Your task to perform on an android device: find which apps use the phone's location Image 0: 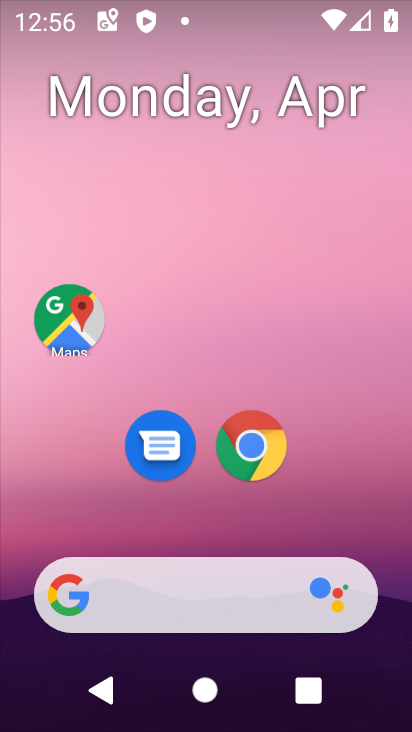
Step 0: drag from (377, 510) to (376, 86)
Your task to perform on an android device: find which apps use the phone's location Image 1: 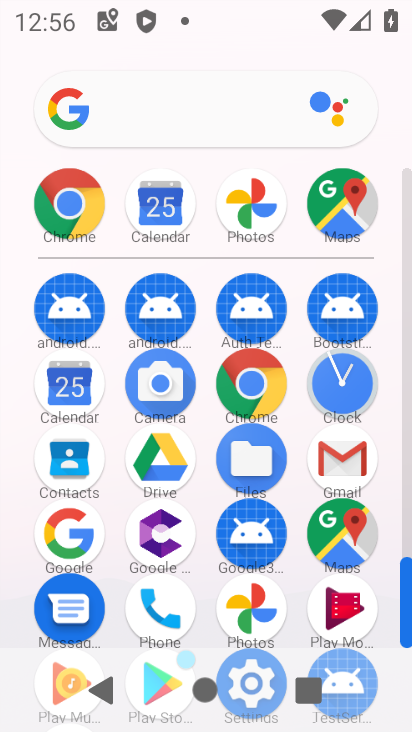
Step 1: drag from (391, 520) to (389, 249)
Your task to perform on an android device: find which apps use the phone's location Image 2: 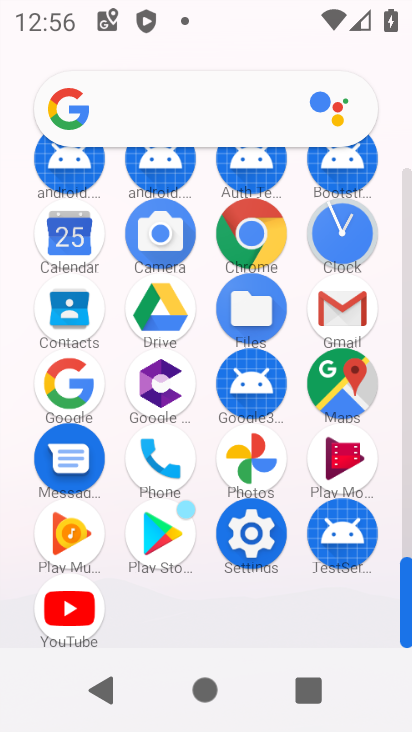
Step 2: click (236, 542)
Your task to perform on an android device: find which apps use the phone's location Image 3: 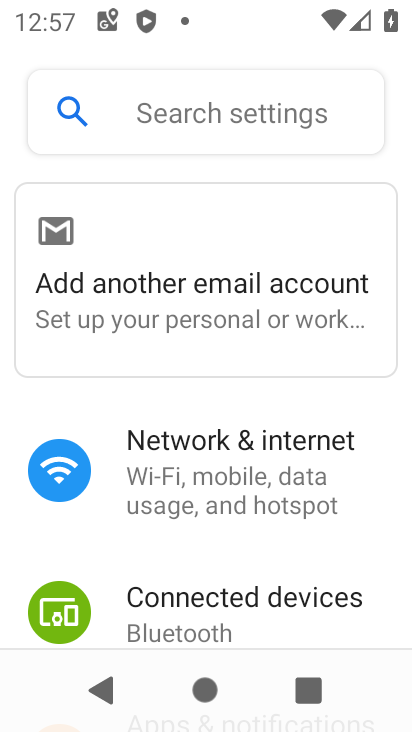
Step 3: drag from (355, 552) to (368, 338)
Your task to perform on an android device: find which apps use the phone's location Image 4: 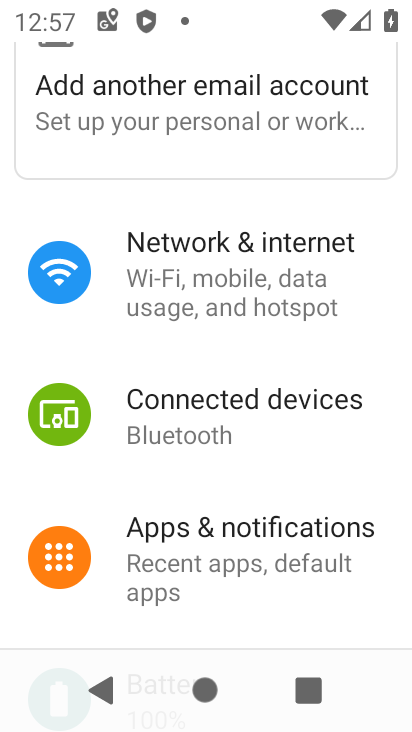
Step 4: drag from (376, 613) to (374, 355)
Your task to perform on an android device: find which apps use the phone's location Image 5: 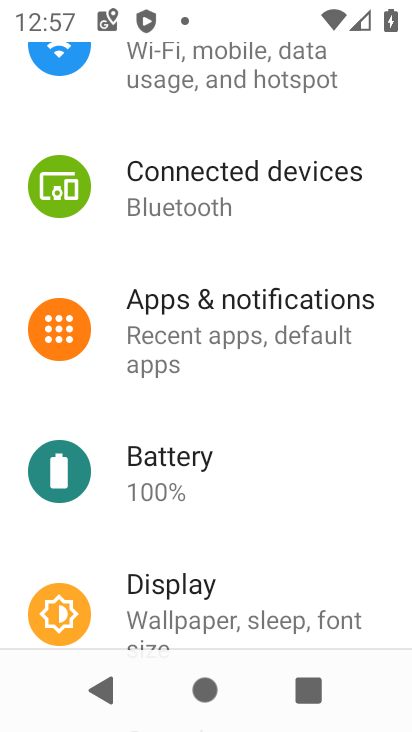
Step 5: drag from (369, 595) to (374, 293)
Your task to perform on an android device: find which apps use the phone's location Image 6: 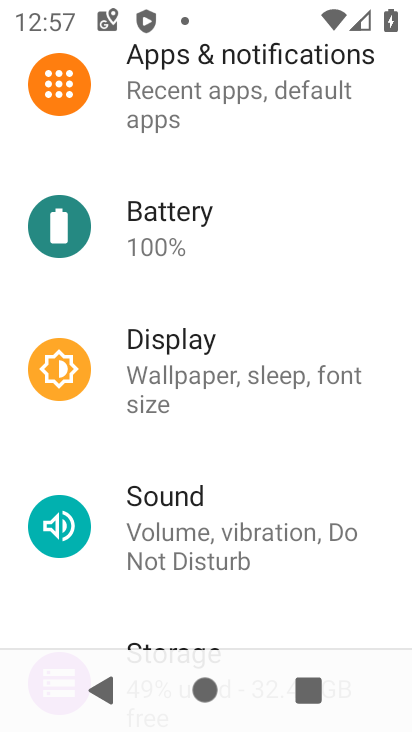
Step 6: drag from (342, 597) to (365, 359)
Your task to perform on an android device: find which apps use the phone's location Image 7: 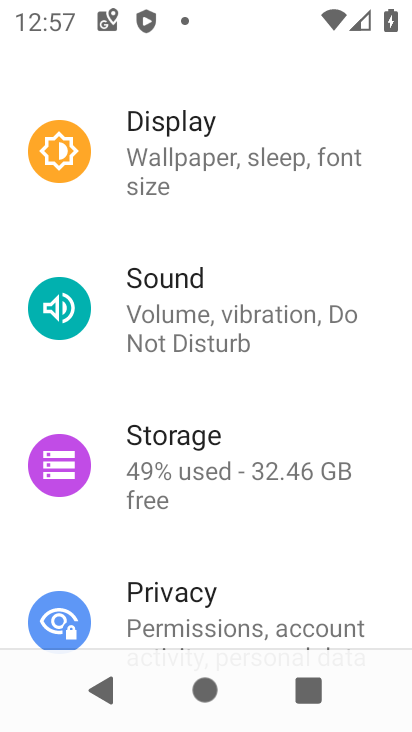
Step 7: drag from (343, 578) to (360, 384)
Your task to perform on an android device: find which apps use the phone's location Image 8: 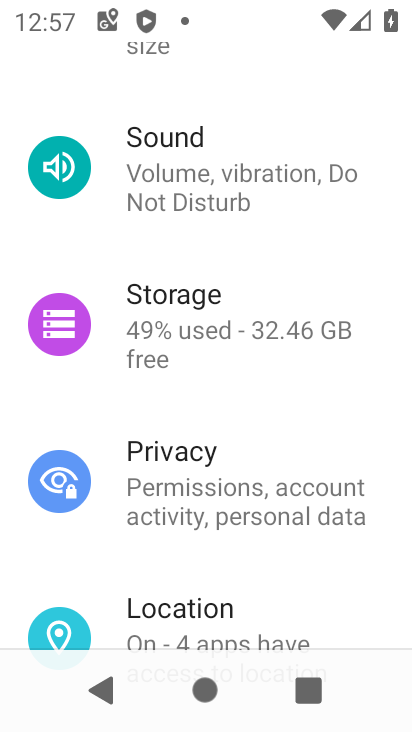
Step 8: drag from (336, 579) to (305, 379)
Your task to perform on an android device: find which apps use the phone's location Image 9: 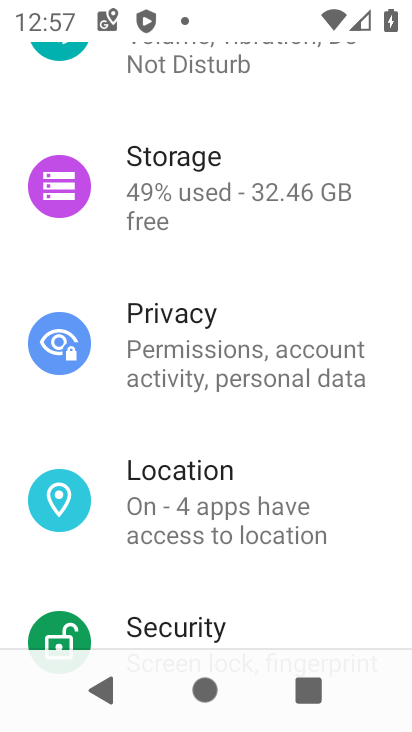
Step 9: drag from (343, 372) to (345, 285)
Your task to perform on an android device: find which apps use the phone's location Image 10: 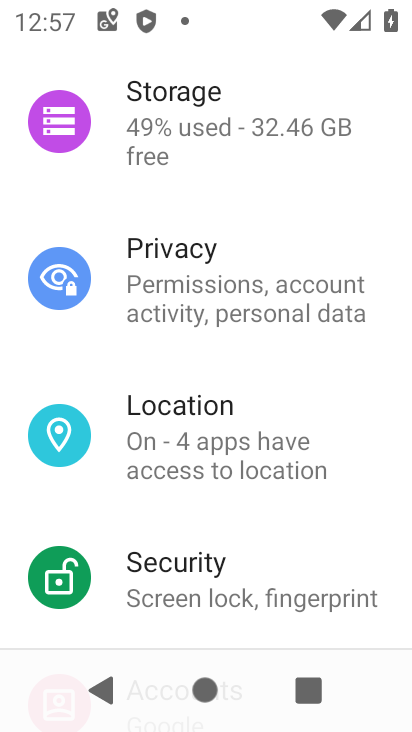
Step 10: click (183, 443)
Your task to perform on an android device: find which apps use the phone's location Image 11: 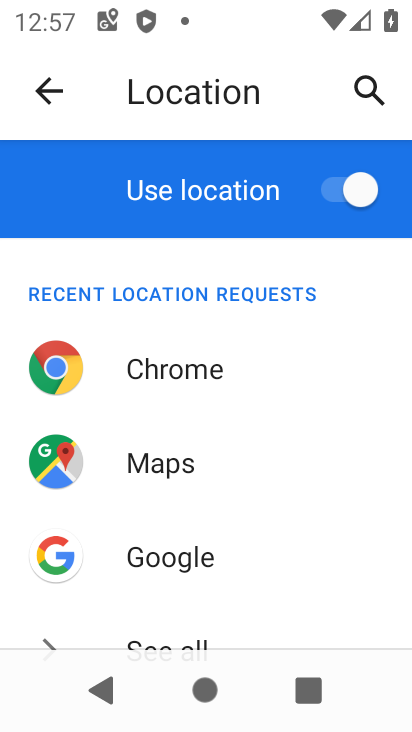
Step 11: drag from (334, 541) to (340, 424)
Your task to perform on an android device: find which apps use the phone's location Image 12: 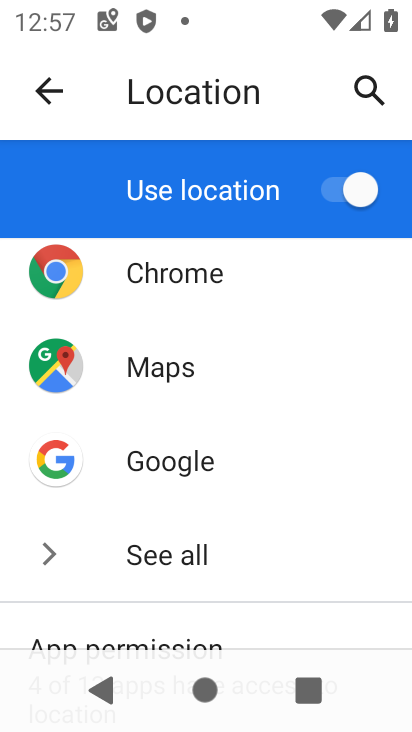
Step 12: drag from (347, 573) to (345, 356)
Your task to perform on an android device: find which apps use the phone's location Image 13: 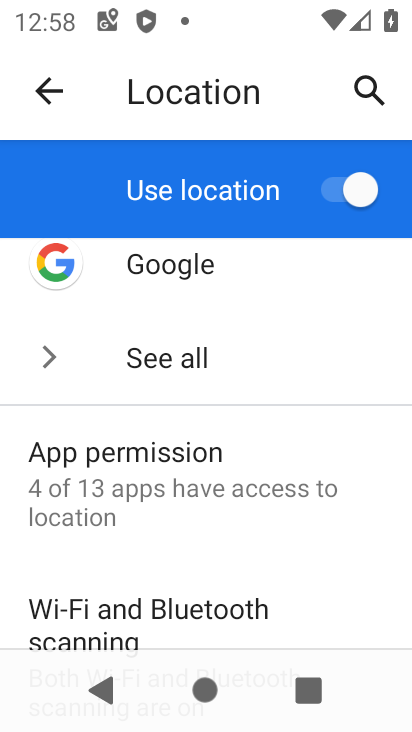
Step 13: drag from (328, 570) to (326, 397)
Your task to perform on an android device: find which apps use the phone's location Image 14: 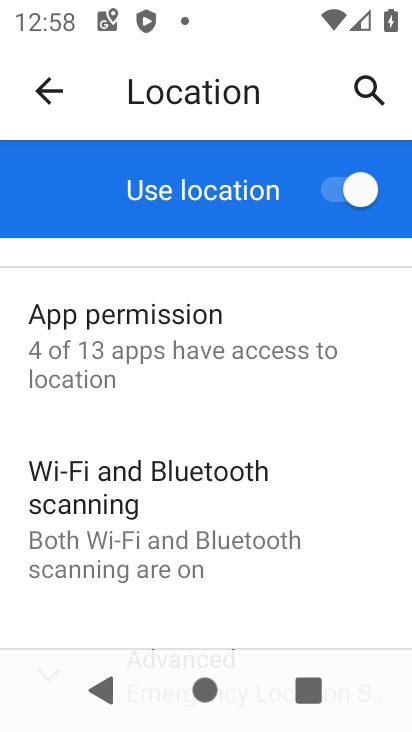
Step 14: drag from (336, 576) to (338, 430)
Your task to perform on an android device: find which apps use the phone's location Image 15: 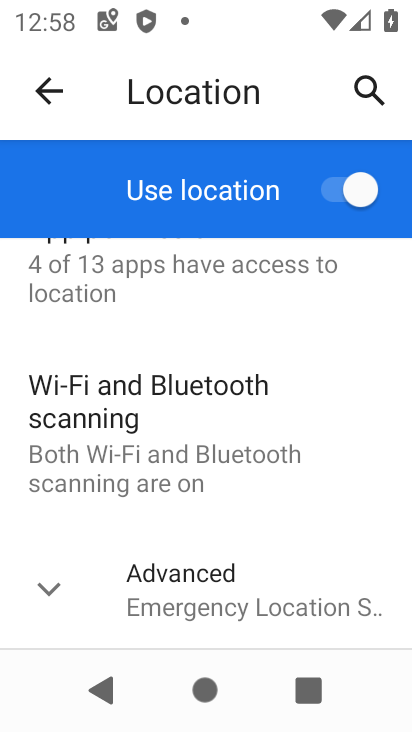
Step 15: click (183, 275)
Your task to perform on an android device: find which apps use the phone's location Image 16: 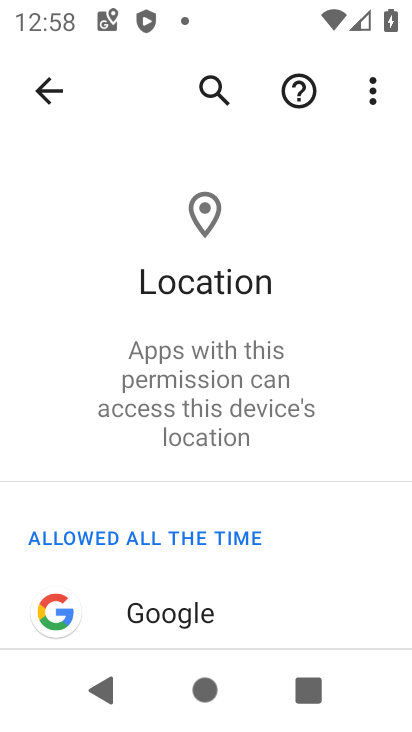
Step 16: drag from (318, 579) to (319, 372)
Your task to perform on an android device: find which apps use the phone's location Image 17: 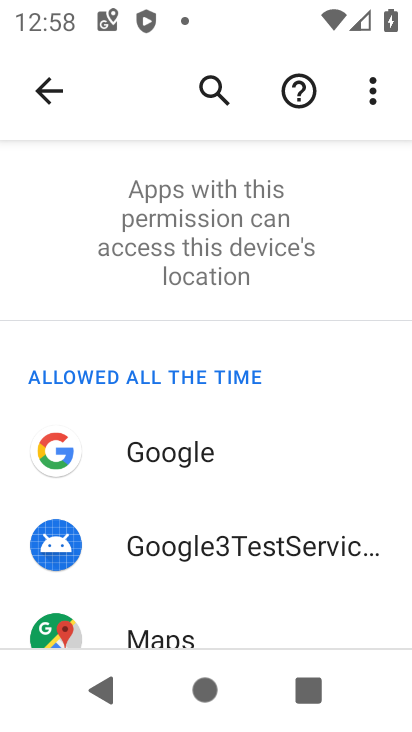
Step 17: drag from (318, 588) to (316, 354)
Your task to perform on an android device: find which apps use the phone's location Image 18: 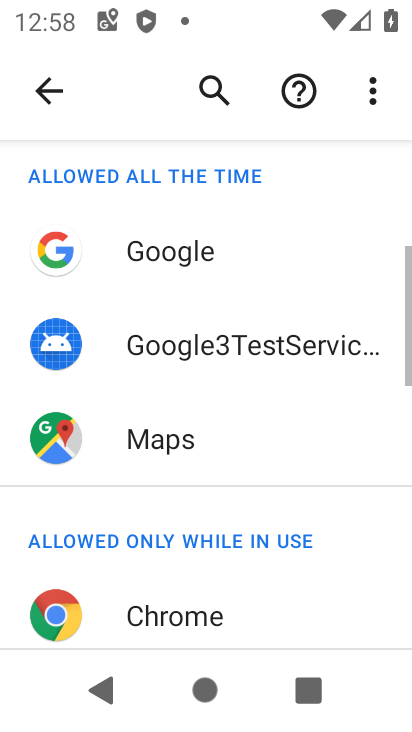
Step 18: drag from (335, 584) to (338, 376)
Your task to perform on an android device: find which apps use the phone's location Image 19: 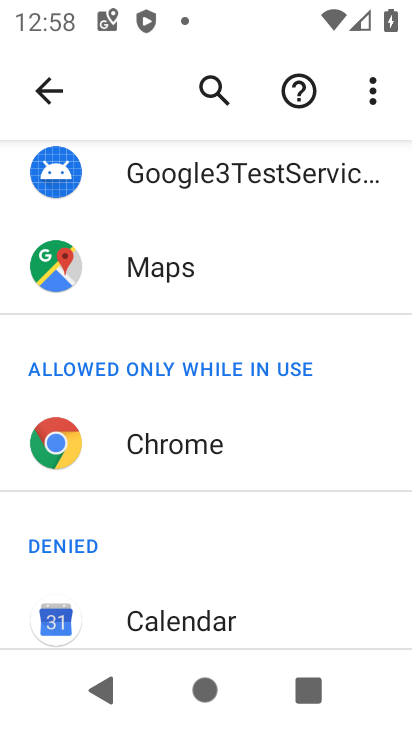
Step 19: drag from (320, 529) to (323, 346)
Your task to perform on an android device: find which apps use the phone's location Image 20: 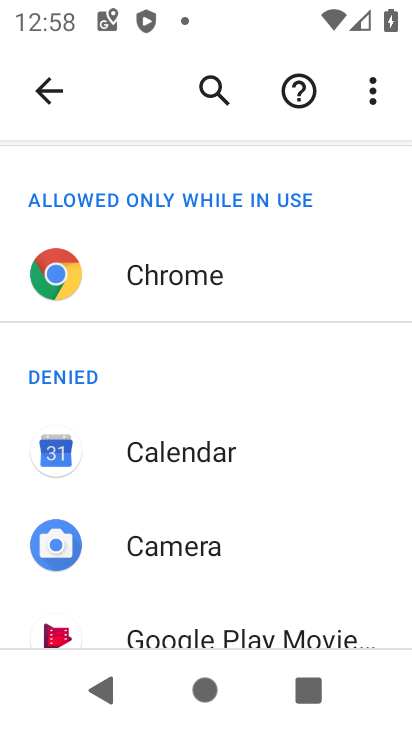
Step 20: drag from (304, 563) to (314, 343)
Your task to perform on an android device: find which apps use the phone's location Image 21: 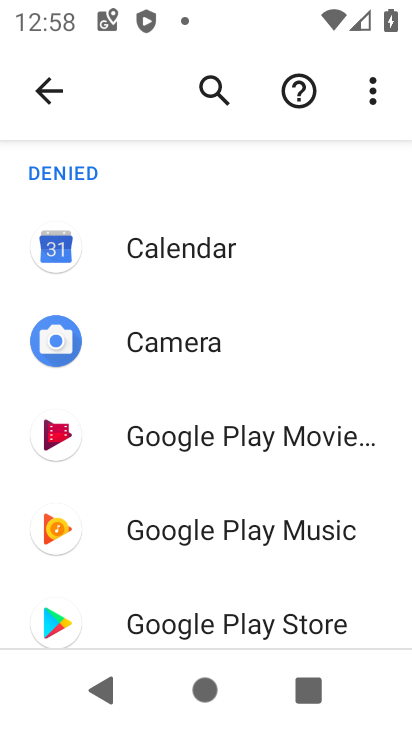
Step 21: drag from (335, 561) to (340, 273)
Your task to perform on an android device: find which apps use the phone's location Image 22: 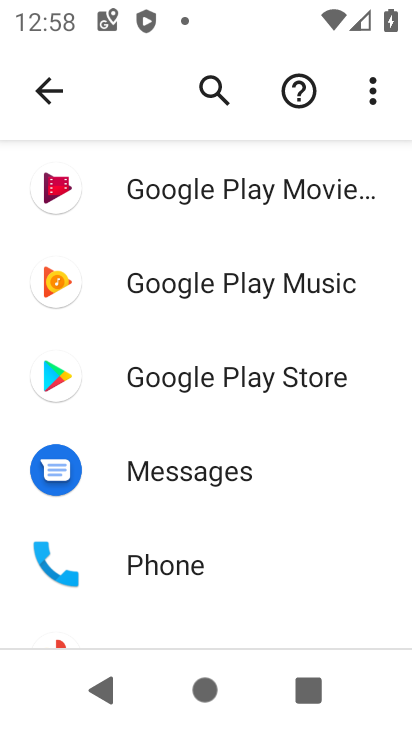
Step 22: drag from (340, 554) to (342, 362)
Your task to perform on an android device: find which apps use the phone's location Image 23: 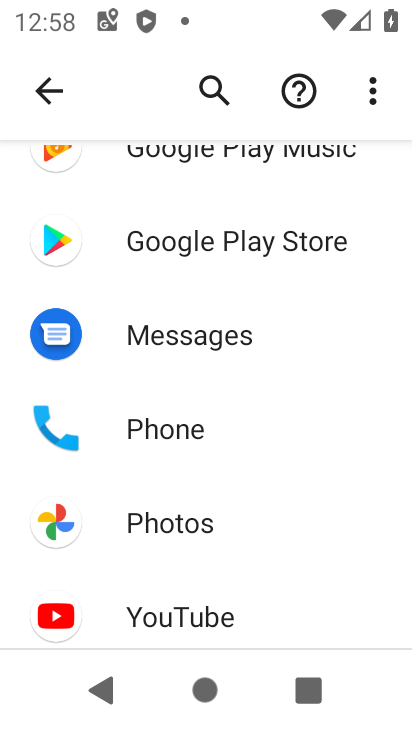
Step 23: click (187, 527)
Your task to perform on an android device: find which apps use the phone's location Image 24: 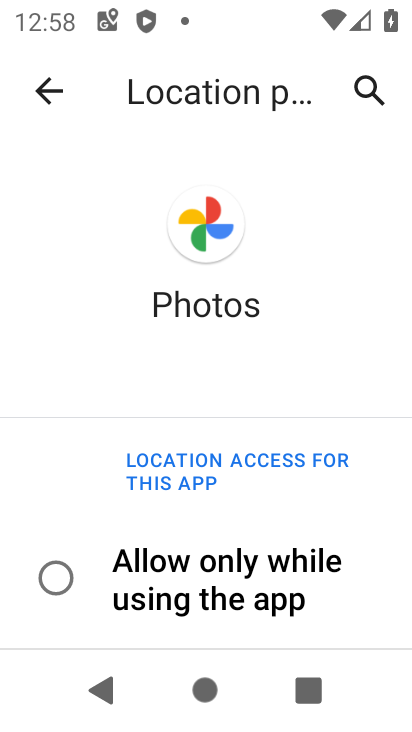
Step 24: click (43, 577)
Your task to perform on an android device: find which apps use the phone's location Image 25: 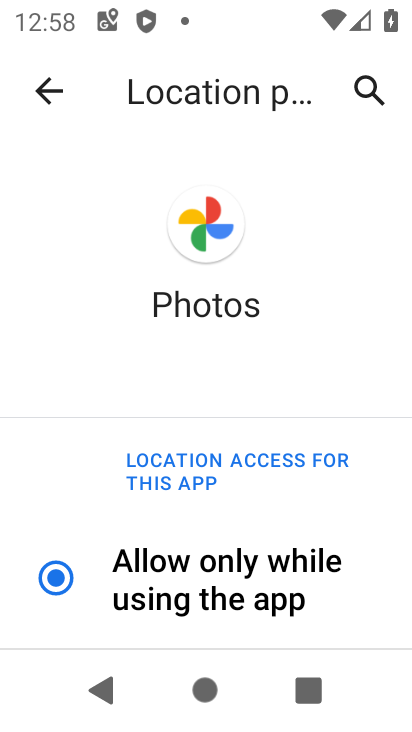
Step 25: task complete